Your task to perform on an android device: Open privacy settings Image 0: 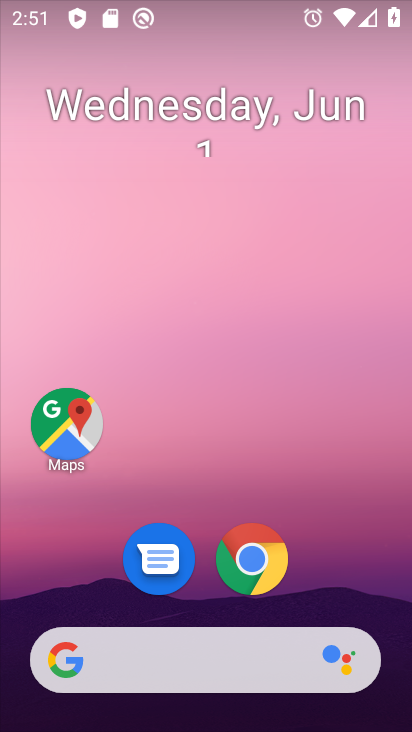
Step 0: drag from (319, 392) to (326, 18)
Your task to perform on an android device: Open privacy settings Image 1: 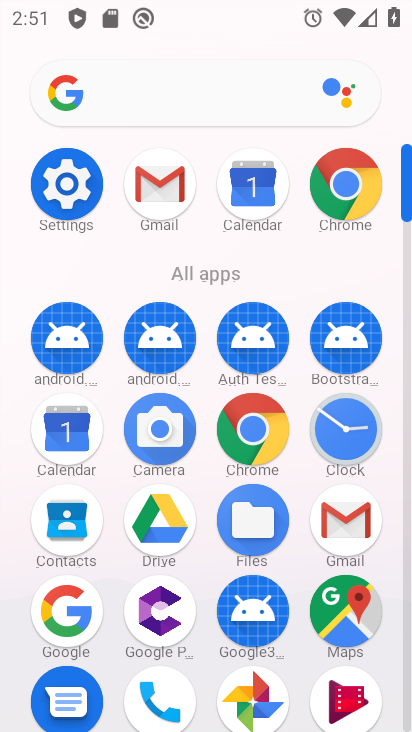
Step 1: click (56, 193)
Your task to perform on an android device: Open privacy settings Image 2: 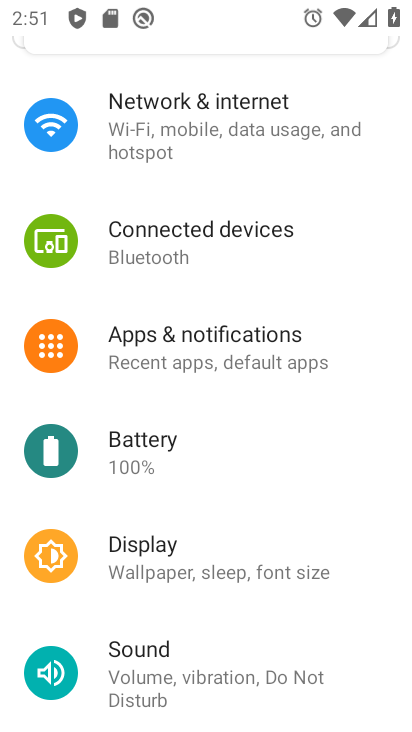
Step 2: drag from (171, 548) to (228, 139)
Your task to perform on an android device: Open privacy settings Image 3: 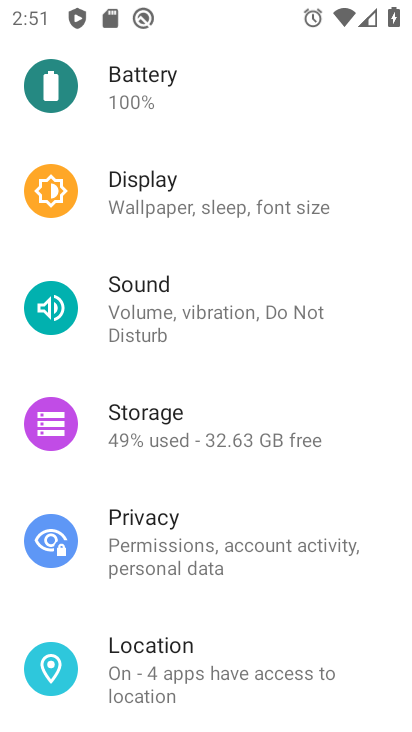
Step 3: click (135, 528)
Your task to perform on an android device: Open privacy settings Image 4: 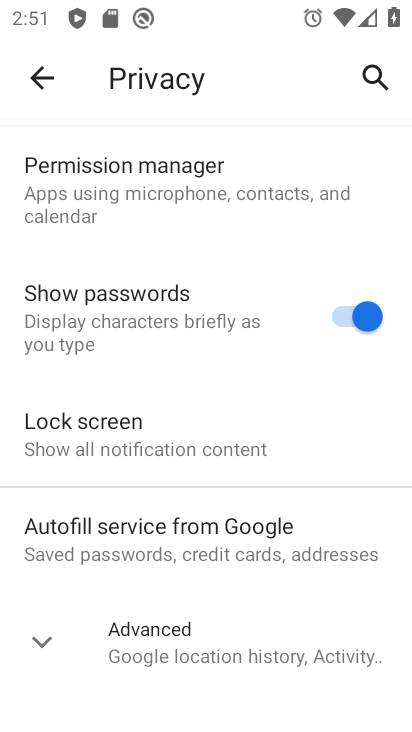
Step 4: task complete